Your task to perform on an android device: find snoozed emails in the gmail app Image 0: 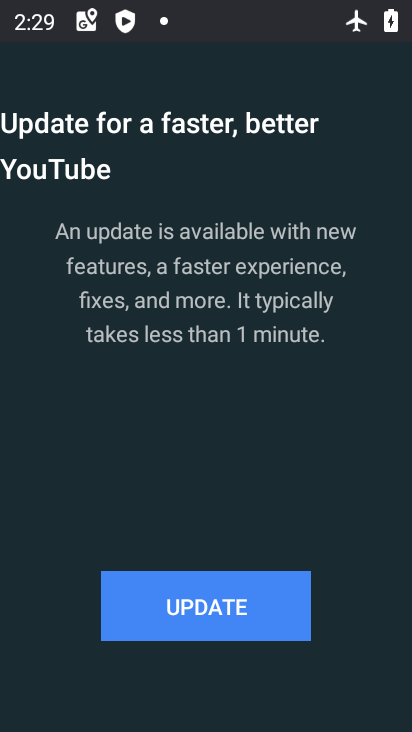
Step 0: press back button
Your task to perform on an android device: find snoozed emails in the gmail app Image 1: 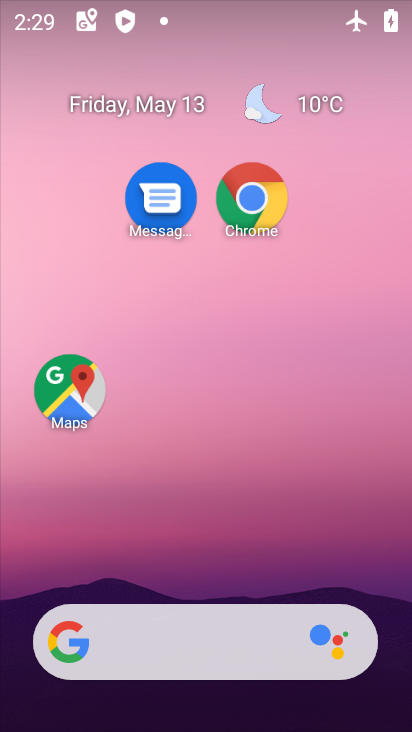
Step 1: drag from (215, 588) to (255, 3)
Your task to perform on an android device: find snoozed emails in the gmail app Image 2: 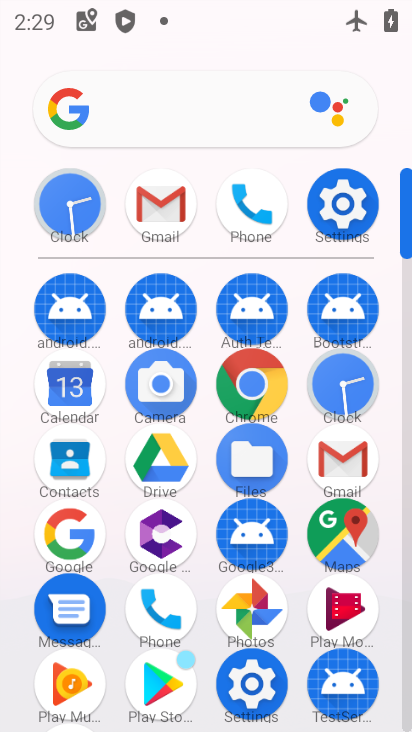
Step 2: click (347, 472)
Your task to perform on an android device: find snoozed emails in the gmail app Image 3: 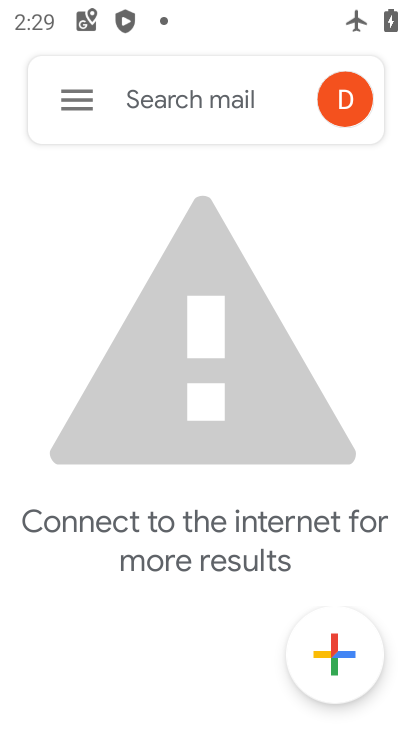
Step 3: click (82, 105)
Your task to perform on an android device: find snoozed emails in the gmail app Image 4: 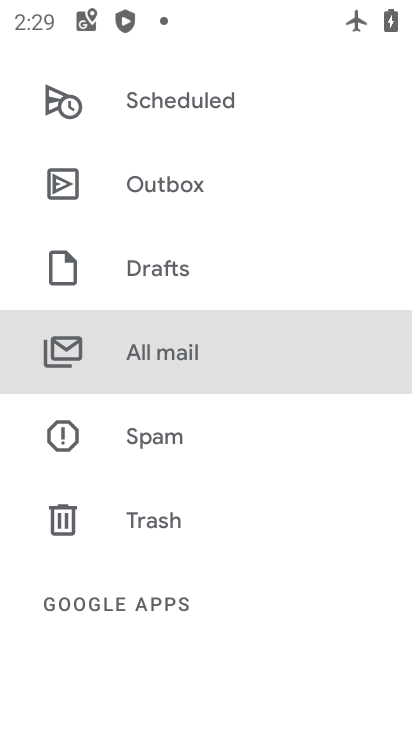
Step 4: drag from (163, 107) to (222, 512)
Your task to perform on an android device: find snoozed emails in the gmail app Image 5: 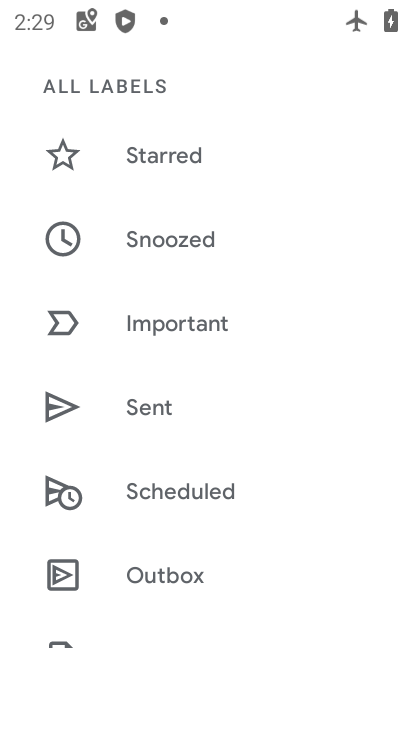
Step 5: click (137, 239)
Your task to perform on an android device: find snoozed emails in the gmail app Image 6: 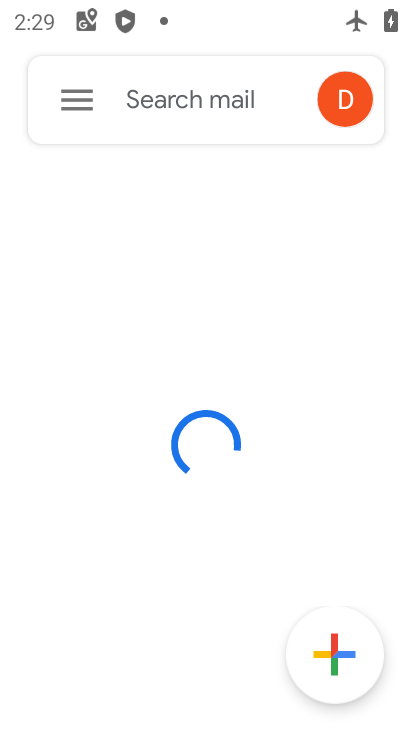
Step 6: task complete